Your task to perform on an android device: Show me popular games on the Play Store Image 0: 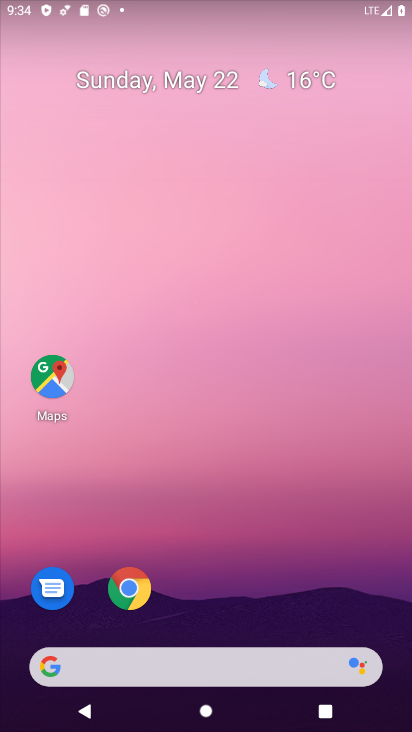
Step 0: drag from (190, 620) to (233, 135)
Your task to perform on an android device: Show me popular games on the Play Store Image 1: 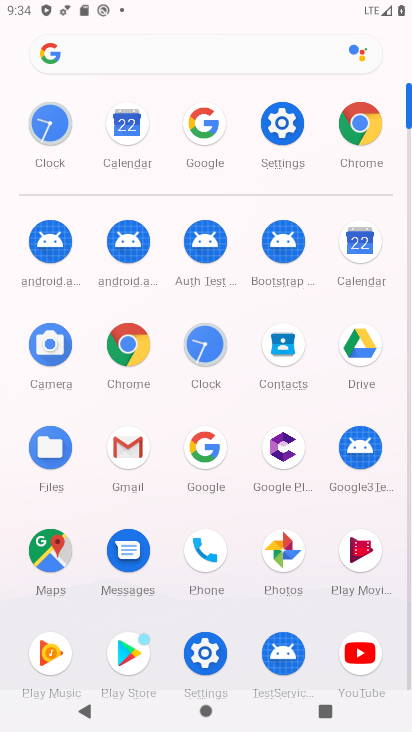
Step 1: click (117, 654)
Your task to perform on an android device: Show me popular games on the Play Store Image 2: 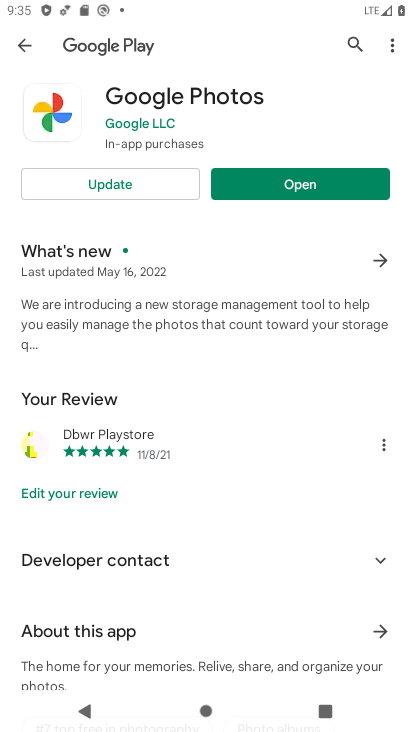
Step 2: click (23, 43)
Your task to perform on an android device: Show me popular games on the Play Store Image 3: 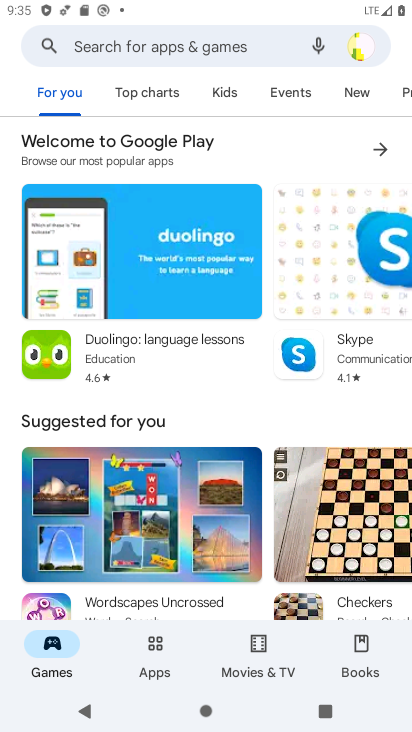
Step 3: click (154, 97)
Your task to perform on an android device: Show me popular games on the Play Store Image 4: 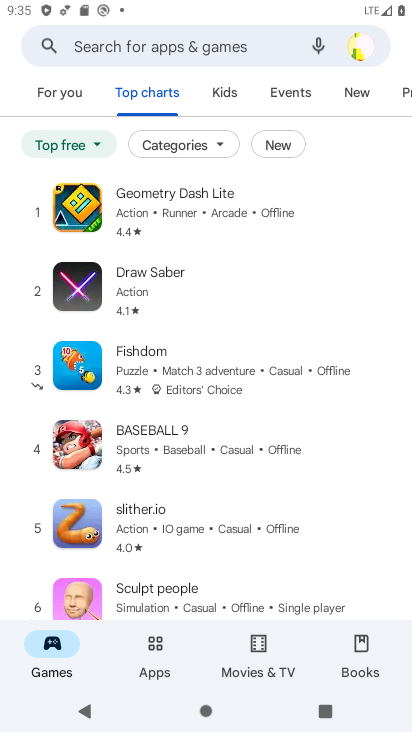
Step 4: task complete